Your task to perform on an android device: check battery use Image 0: 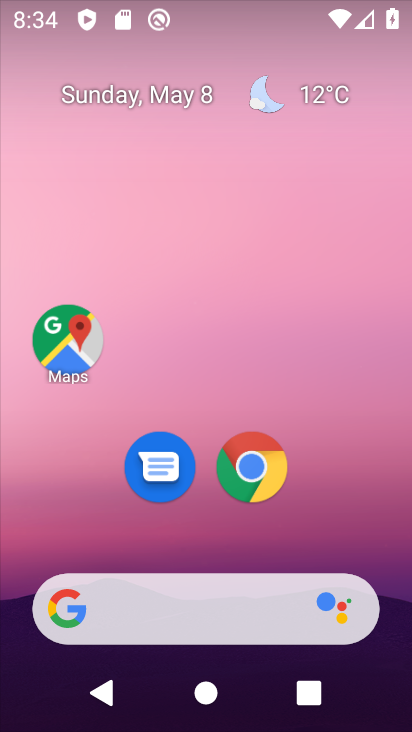
Step 0: drag from (186, 421) to (242, 37)
Your task to perform on an android device: check battery use Image 1: 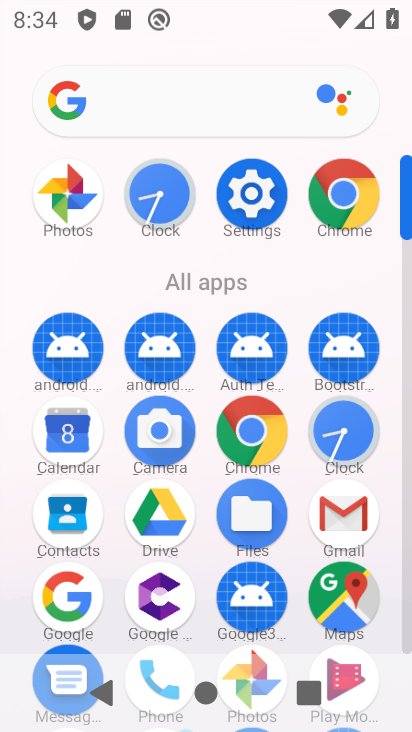
Step 1: click (260, 187)
Your task to perform on an android device: check battery use Image 2: 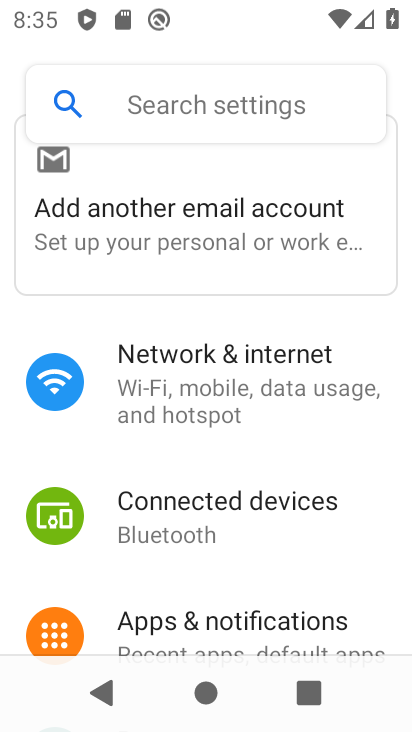
Step 2: drag from (227, 586) to (311, 105)
Your task to perform on an android device: check battery use Image 3: 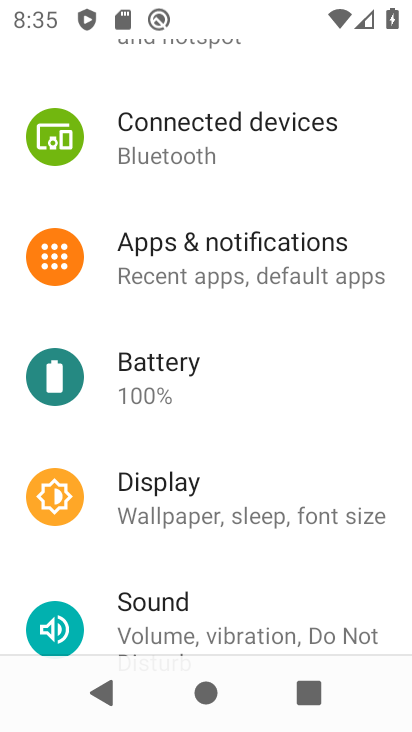
Step 3: click (178, 383)
Your task to perform on an android device: check battery use Image 4: 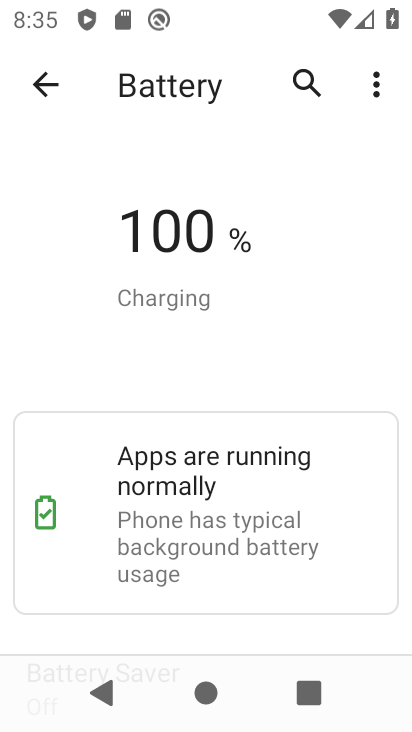
Step 4: task complete